Your task to perform on an android device: uninstall "Mercado Libre" Image 0: 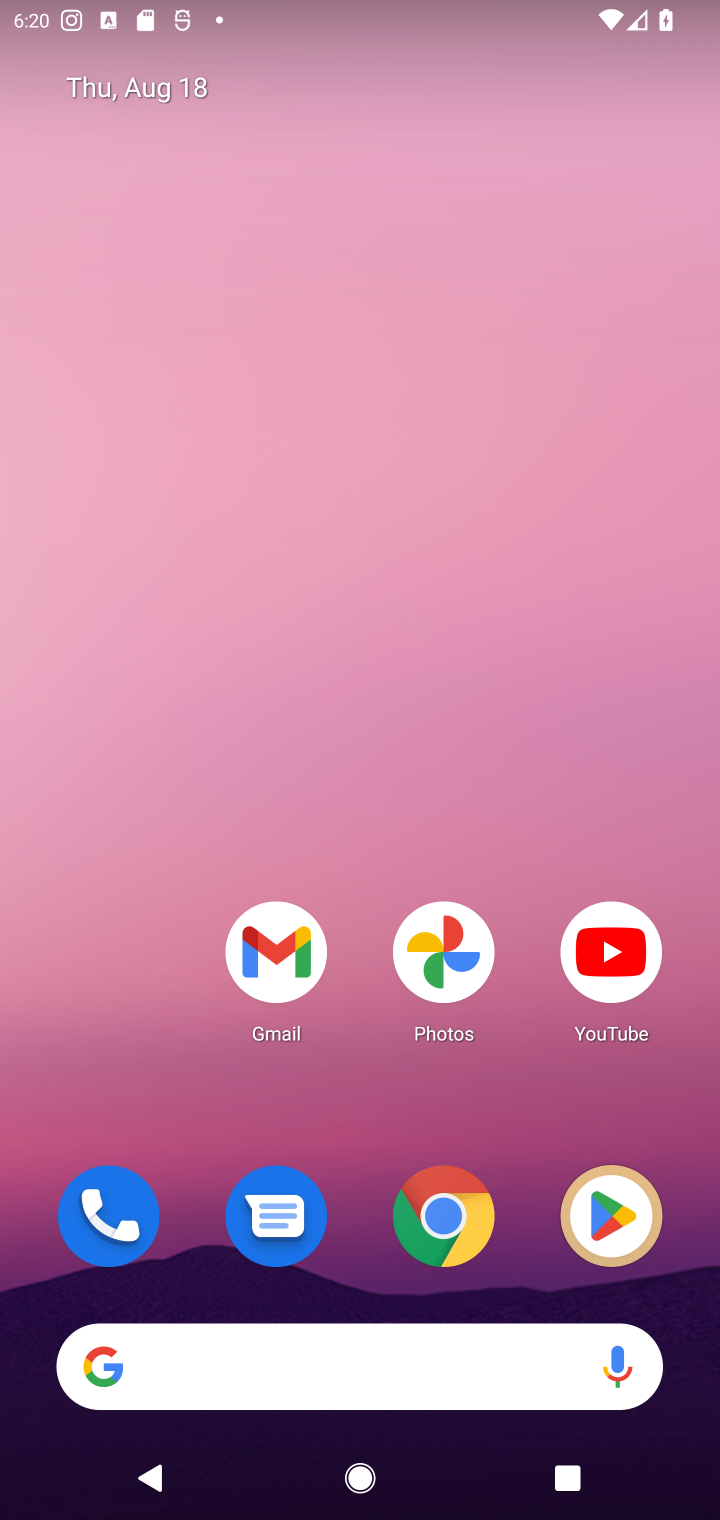
Step 0: click (604, 1242)
Your task to perform on an android device: uninstall "Mercado Libre" Image 1: 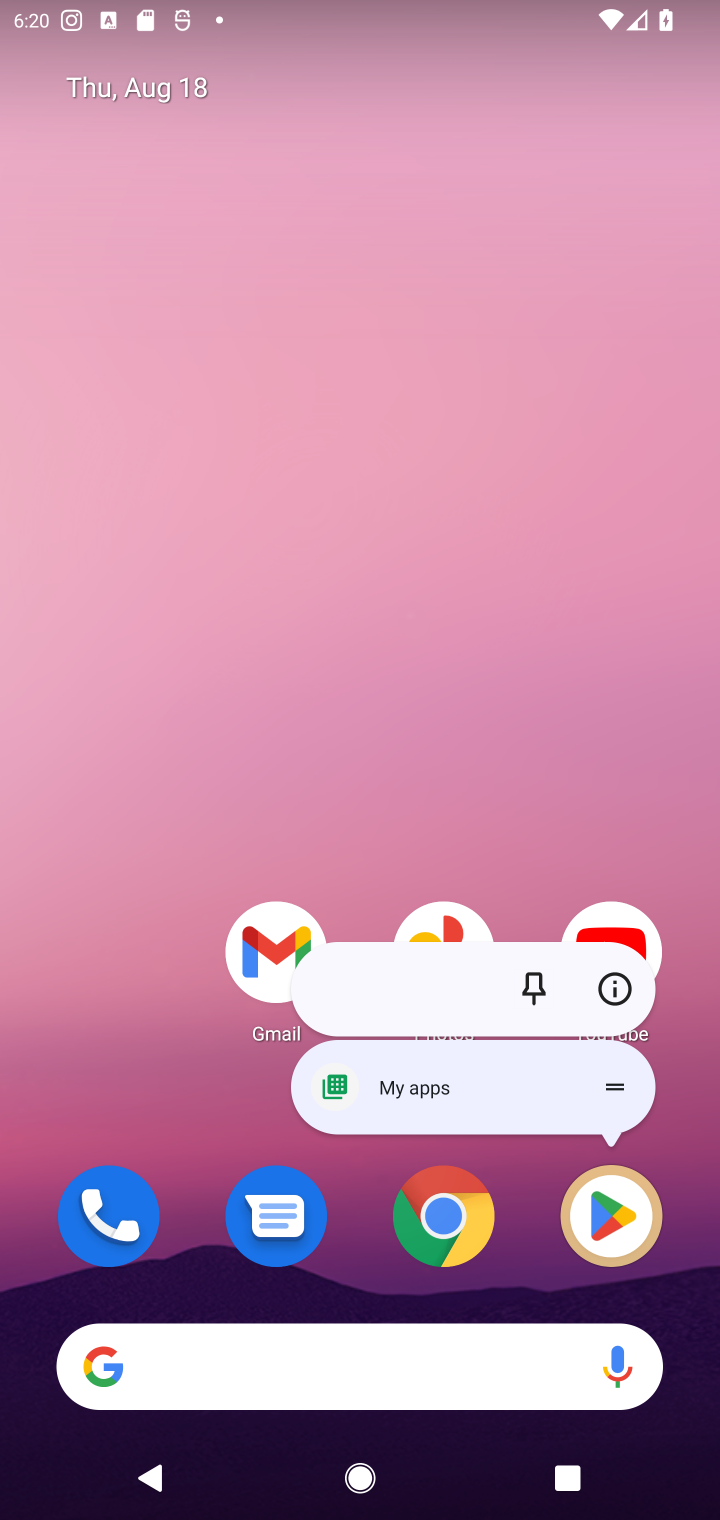
Step 1: click (604, 1242)
Your task to perform on an android device: uninstall "Mercado Libre" Image 2: 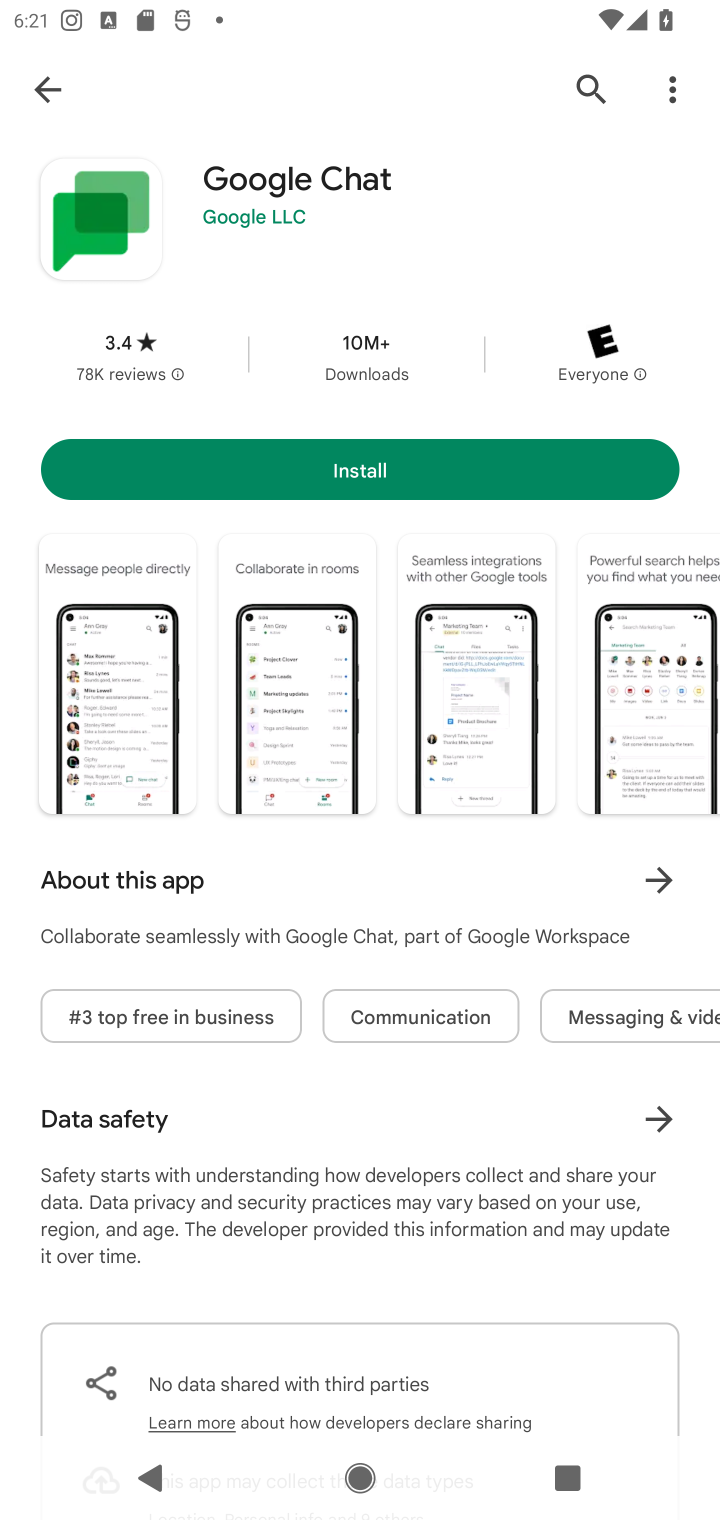
Step 2: task complete